Your task to perform on an android device: change alarm snooze length Image 0: 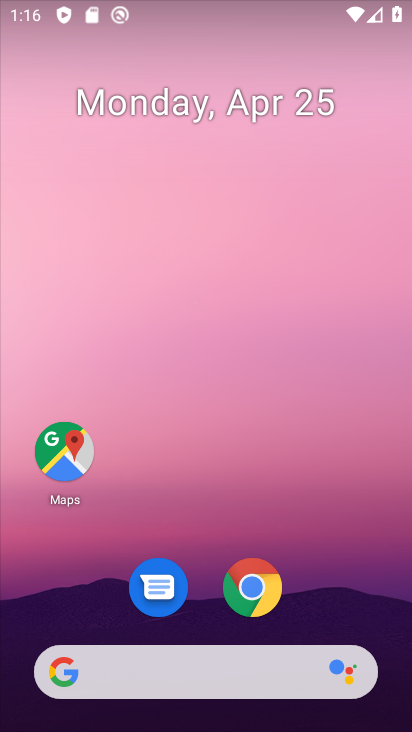
Step 0: drag from (362, 594) to (346, 155)
Your task to perform on an android device: change alarm snooze length Image 1: 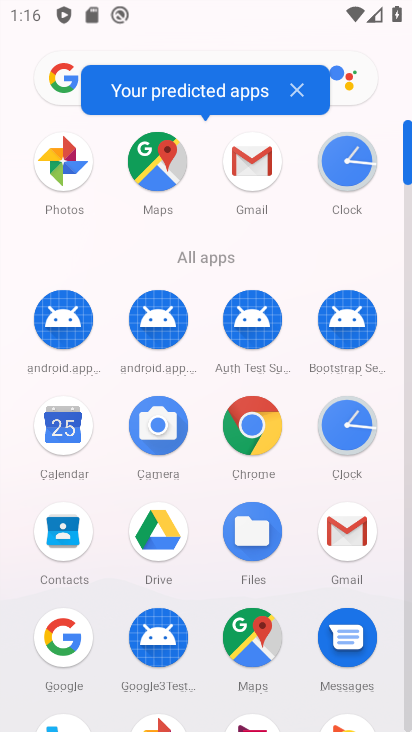
Step 1: click (345, 409)
Your task to perform on an android device: change alarm snooze length Image 2: 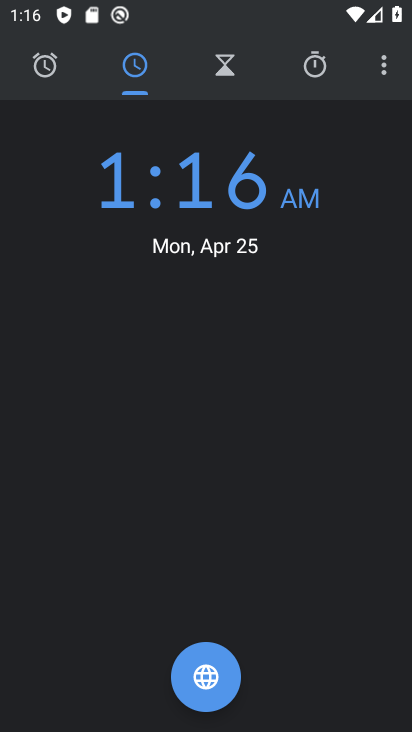
Step 2: click (389, 65)
Your task to perform on an android device: change alarm snooze length Image 3: 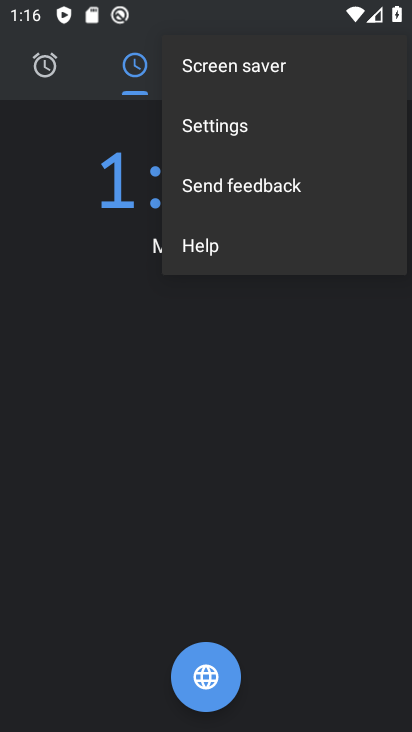
Step 3: click (232, 139)
Your task to perform on an android device: change alarm snooze length Image 4: 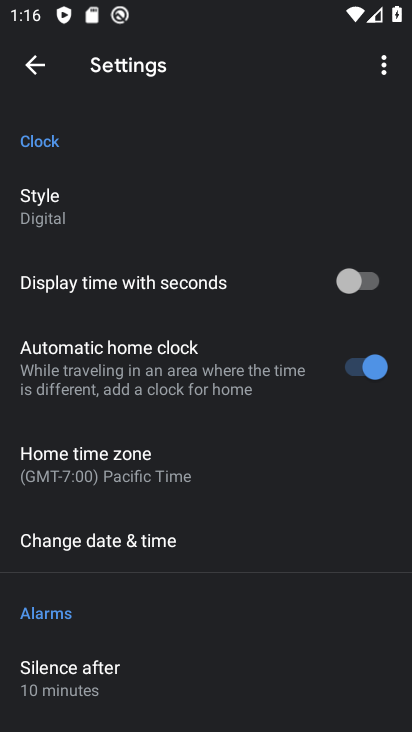
Step 4: drag from (274, 594) to (309, 147)
Your task to perform on an android device: change alarm snooze length Image 5: 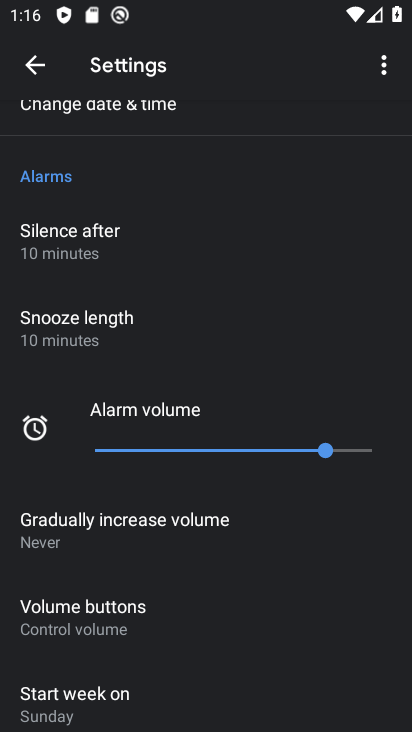
Step 5: drag from (186, 610) to (269, 214)
Your task to perform on an android device: change alarm snooze length Image 6: 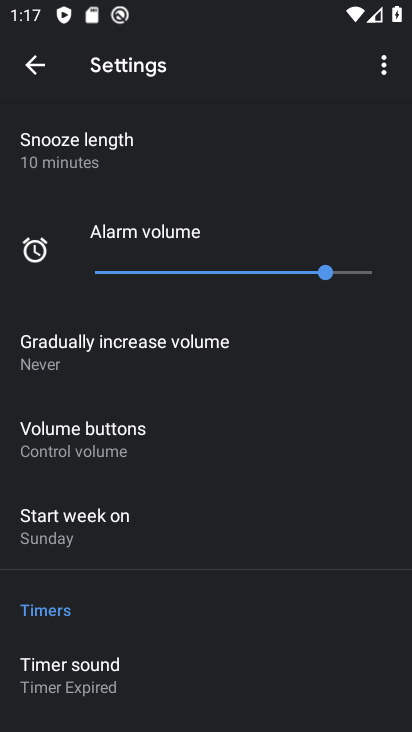
Step 6: click (96, 159)
Your task to perform on an android device: change alarm snooze length Image 7: 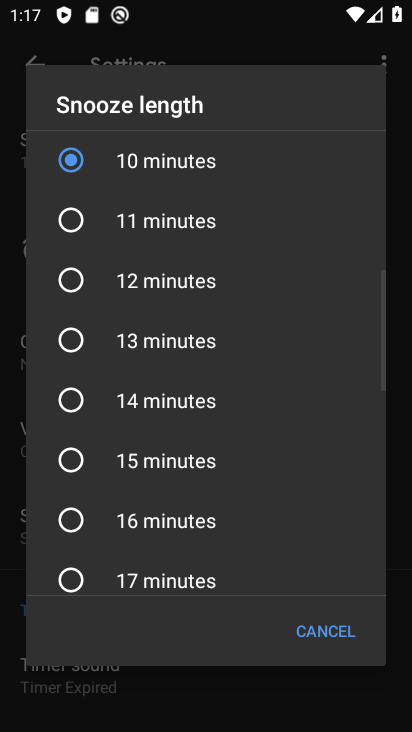
Step 7: click (142, 219)
Your task to perform on an android device: change alarm snooze length Image 8: 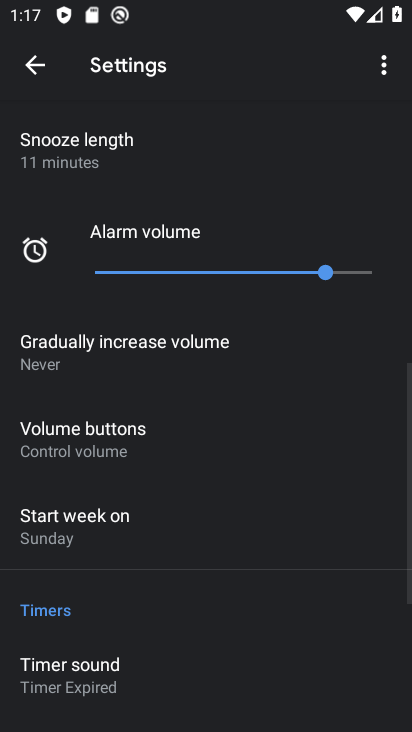
Step 8: task complete